Your task to perform on an android device: Show me the alarms in the clock app Image 0: 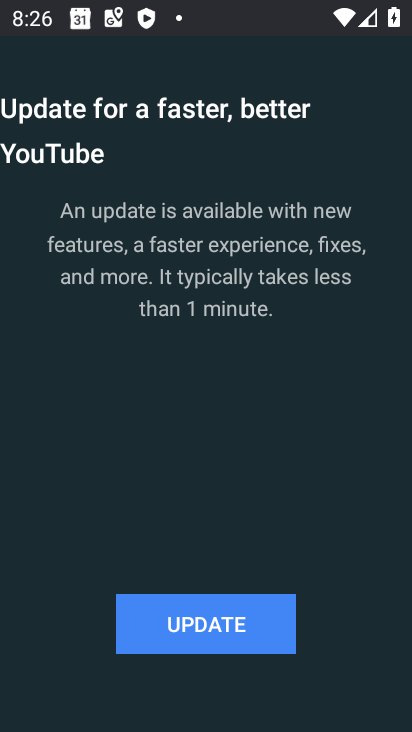
Step 0: press home button
Your task to perform on an android device: Show me the alarms in the clock app Image 1: 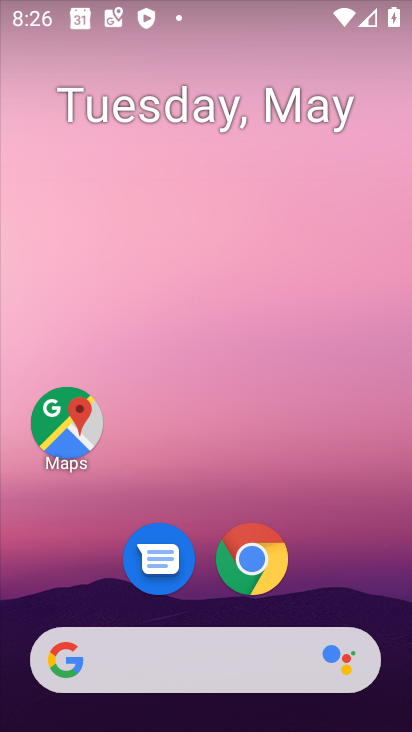
Step 1: drag from (80, 14) to (204, 203)
Your task to perform on an android device: Show me the alarms in the clock app Image 2: 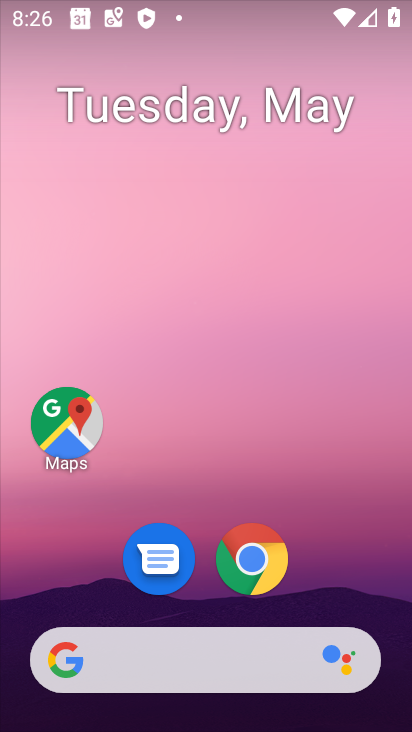
Step 2: drag from (209, 575) to (249, 46)
Your task to perform on an android device: Show me the alarms in the clock app Image 3: 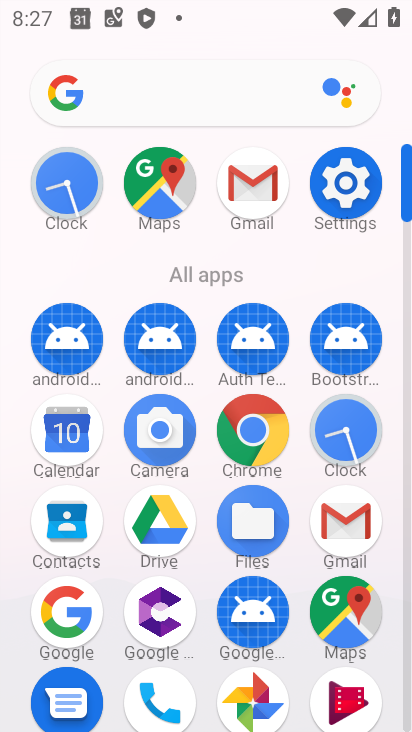
Step 3: click (361, 431)
Your task to perform on an android device: Show me the alarms in the clock app Image 4: 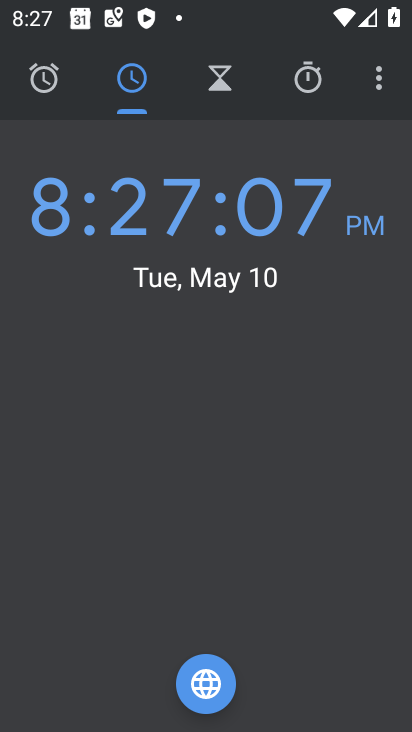
Step 4: click (43, 73)
Your task to perform on an android device: Show me the alarms in the clock app Image 5: 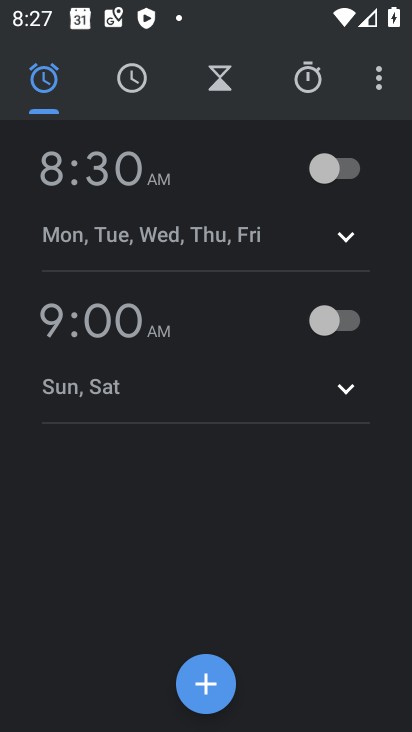
Step 5: task complete